Your task to perform on an android device: empty trash in the gmail app Image 0: 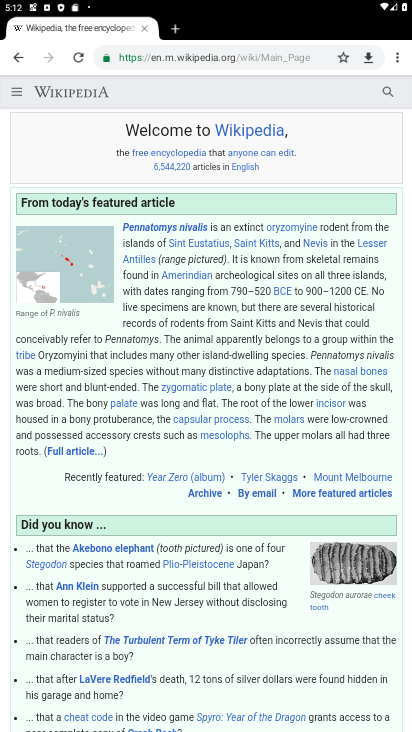
Step 0: press home button
Your task to perform on an android device: empty trash in the gmail app Image 1: 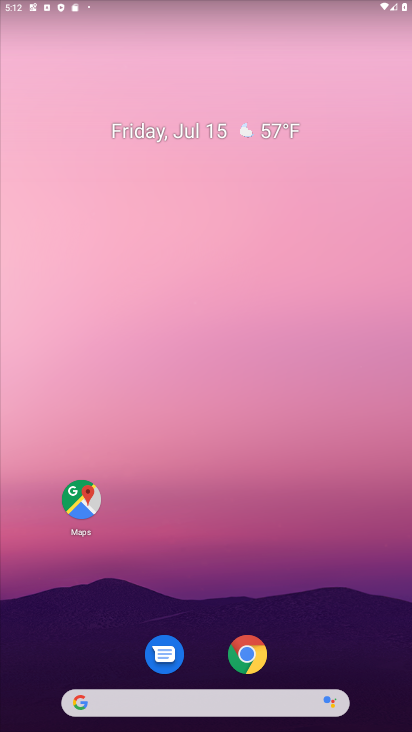
Step 1: drag from (196, 610) to (318, 123)
Your task to perform on an android device: empty trash in the gmail app Image 2: 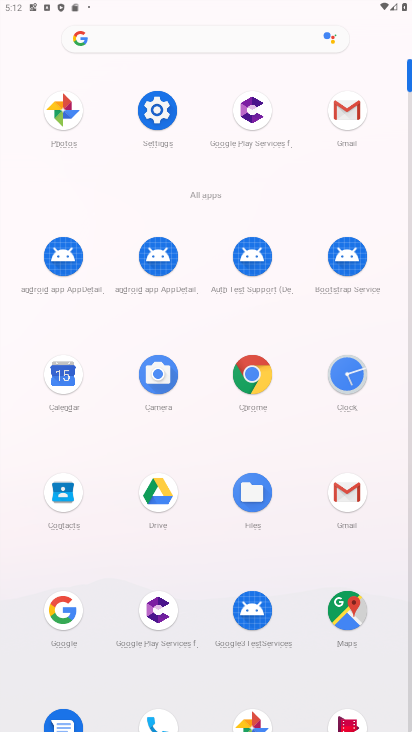
Step 2: click (336, 188)
Your task to perform on an android device: empty trash in the gmail app Image 3: 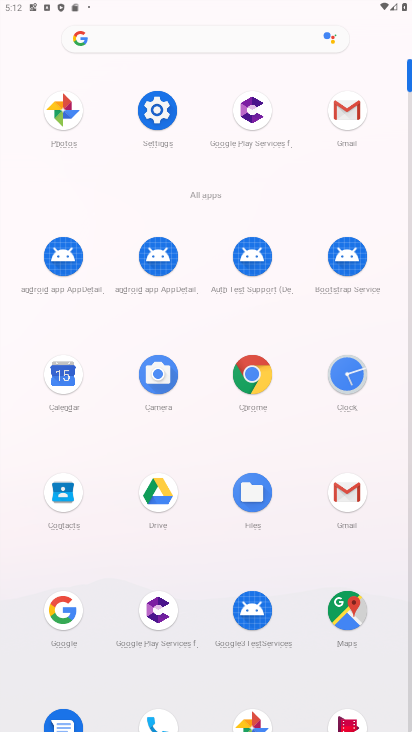
Step 3: click (354, 120)
Your task to perform on an android device: empty trash in the gmail app Image 4: 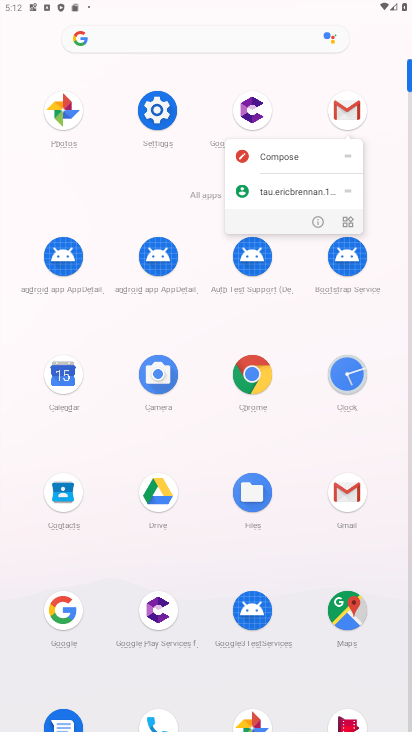
Step 4: click (344, 118)
Your task to perform on an android device: empty trash in the gmail app Image 5: 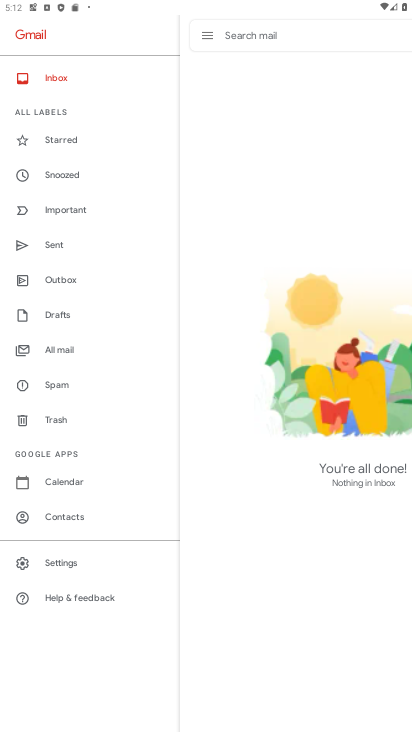
Step 5: click (70, 422)
Your task to perform on an android device: empty trash in the gmail app Image 6: 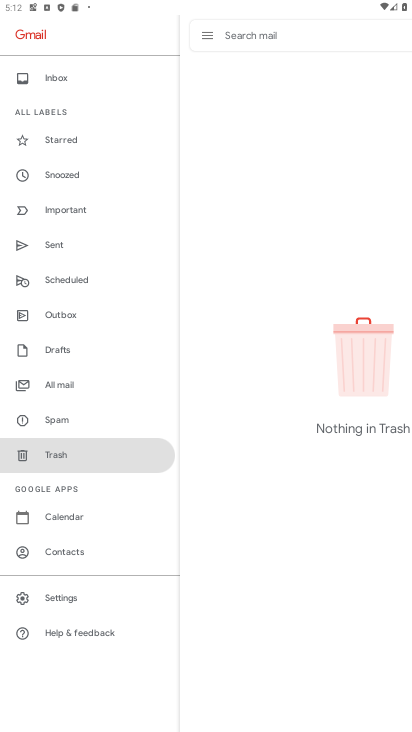
Step 6: task complete